Your task to perform on an android device: change your default location settings in chrome Image 0: 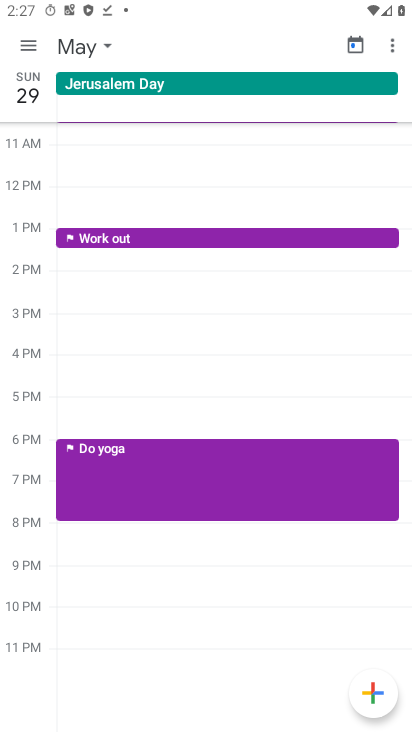
Step 0: click (127, 653)
Your task to perform on an android device: change your default location settings in chrome Image 1: 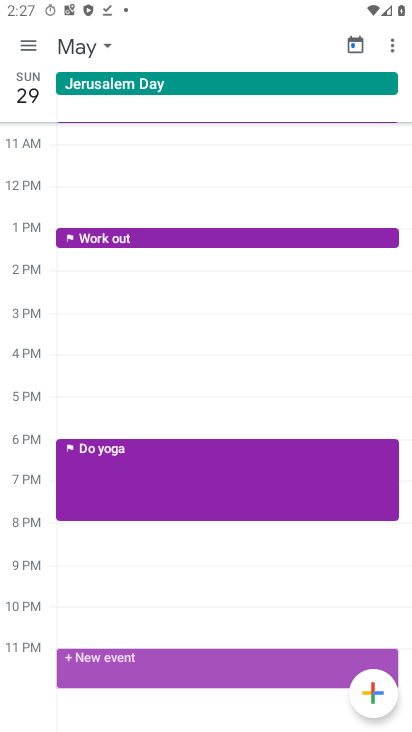
Step 1: press home button
Your task to perform on an android device: change your default location settings in chrome Image 2: 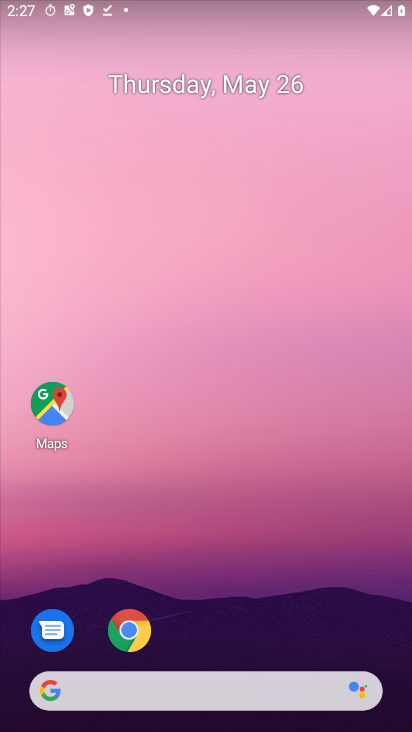
Step 2: click (139, 624)
Your task to perform on an android device: change your default location settings in chrome Image 3: 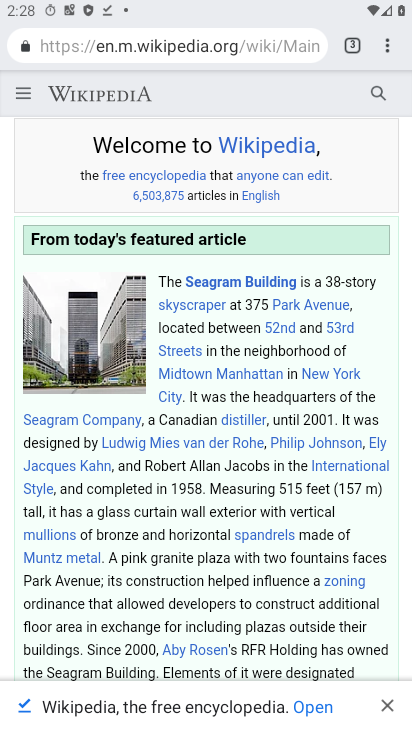
Step 3: click (386, 43)
Your task to perform on an android device: change your default location settings in chrome Image 4: 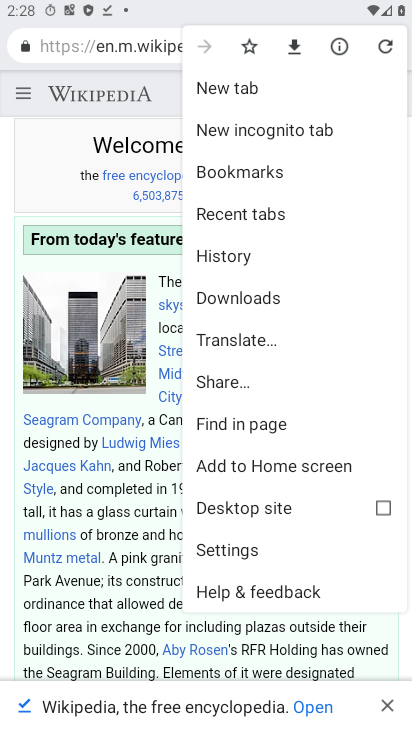
Step 4: click (244, 545)
Your task to perform on an android device: change your default location settings in chrome Image 5: 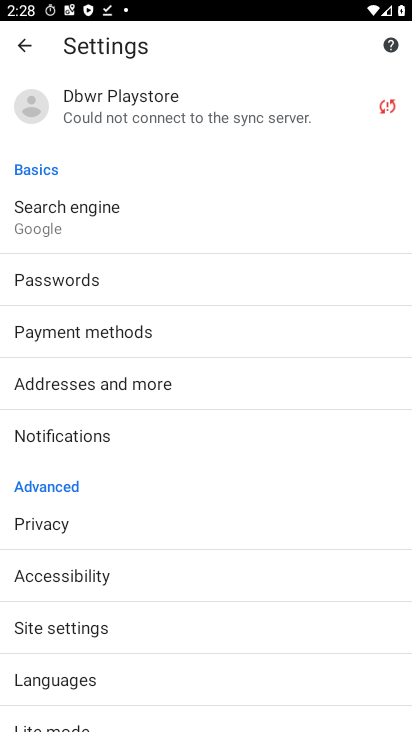
Step 5: drag from (248, 497) to (224, 60)
Your task to perform on an android device: change your default location settings in chrome Image 6: 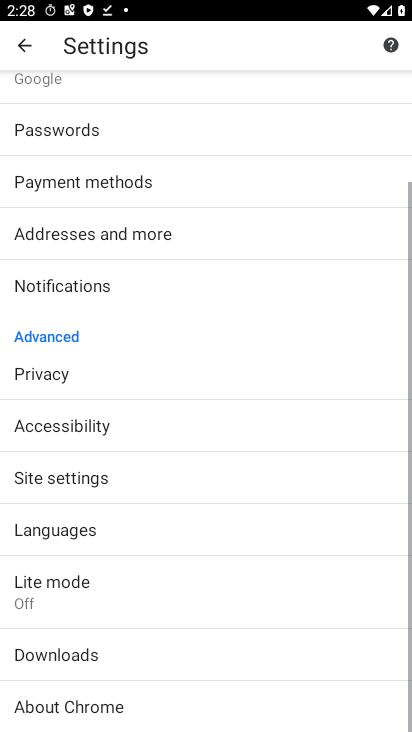
Step 6: drag from (221, 540) to (206, 212)
Your task to perform on an android device: change your default location settings in chrome Image 7: 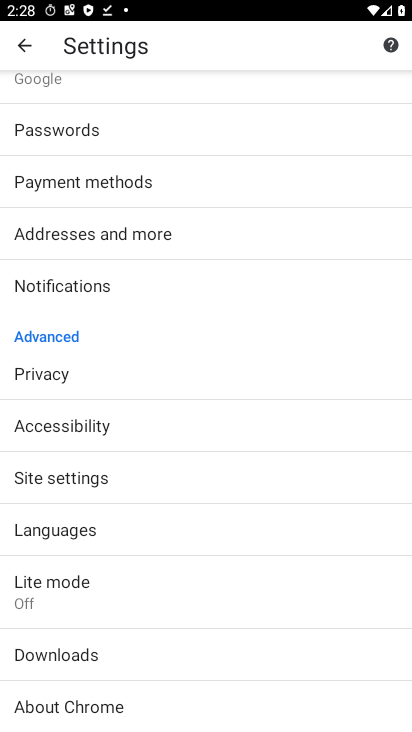
Step 7: click (106, 361)
Your task to perform on an android device: change your default location settings in chrome Image 8: 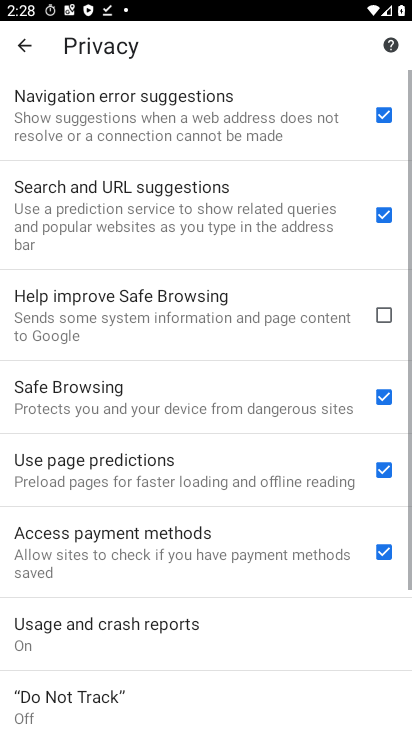
Step 8: drag from (117, 633) to (111, 310)
Your task to perform on an android device: change your default location settings in chrome Image 9: 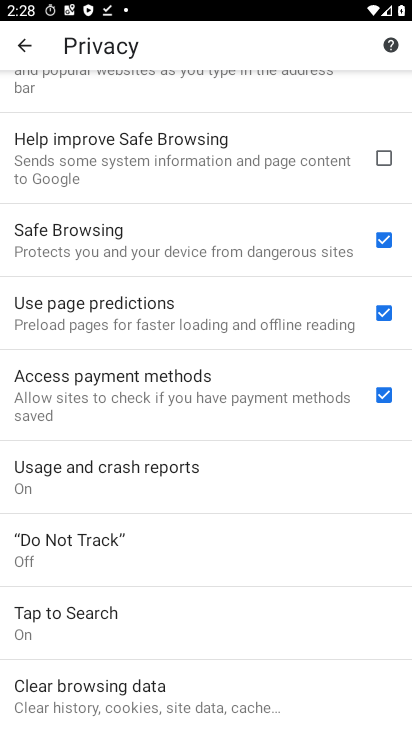
Step 9: drag from (178, 659) to (126, 305)
Your task to perform on an android device: change your default location settings in chrome Image 10: 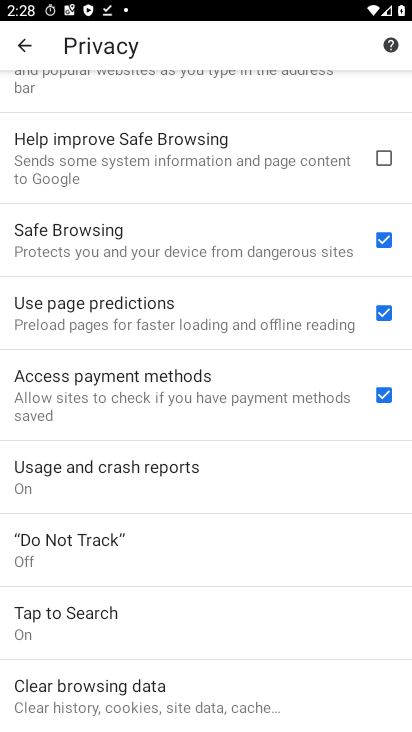
Step 10: press back button
Your task to perform on an android device: change your default location settings in chrome Image 11: 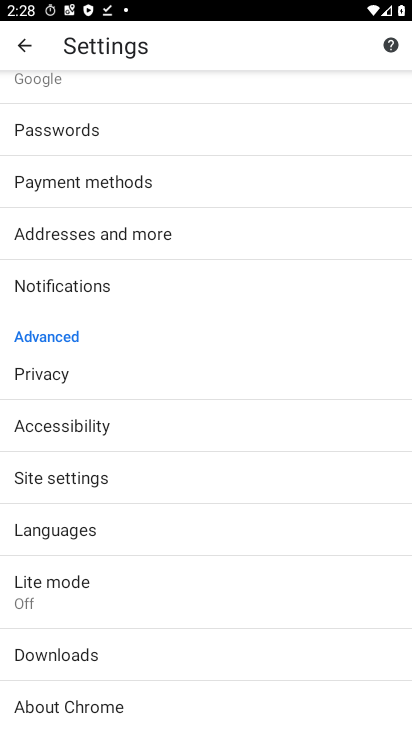
Step 11: click (136, 433)
Your task to perform on an android device: change your default location settings in chrome Image 12: 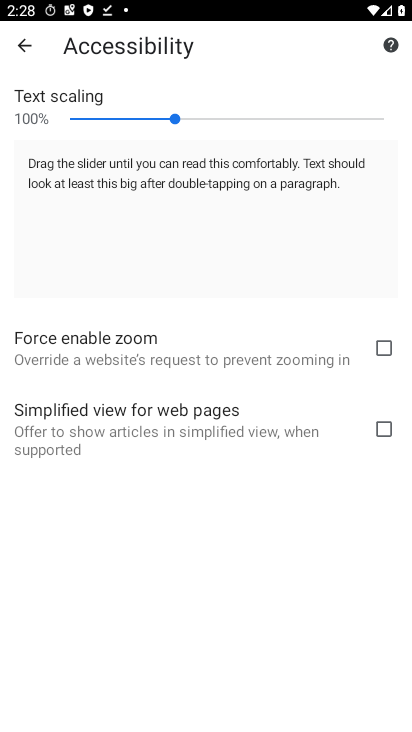
Step 12: task complete